Your task to perform on an android device: move an email to a new category in the gmail app Image 0: 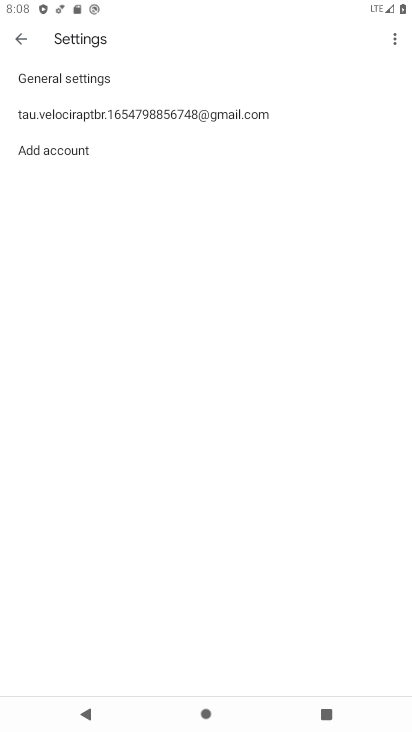
Step 0: press home button
Your task to perform on an android device: move an email to a new category in the gmail app Image 1: 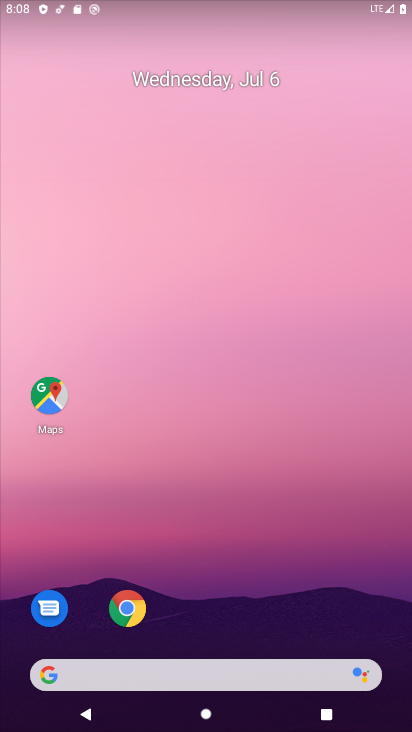
Step 1: drag from (397, 594) to (270, 8)
Your task to perform on an android device: move an email to a new category in the gmail app Image 2: 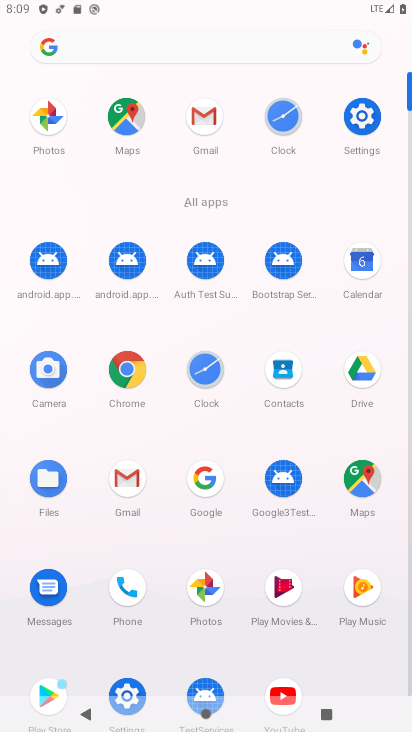
Step 2: click (127, 493)
Your task to perform on an android device: move an email to a new category in the gmail app Image 3: 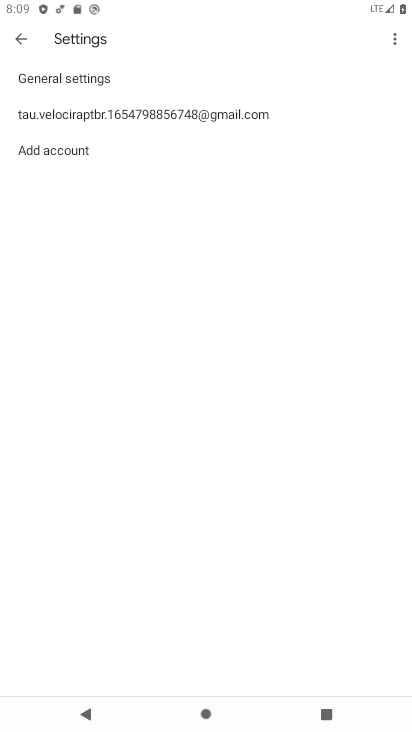
Step 3: task complete